Your task to perform on an android device: Open the map Image 0: 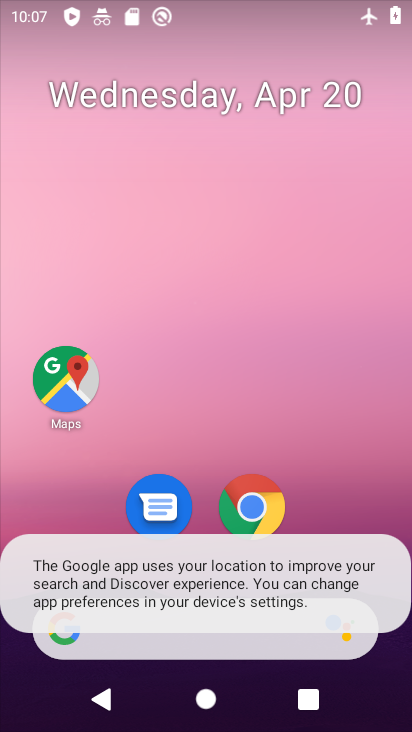
Step 0: drag from (202, 496) to (246, 87)
Your task to perform on an android device: Open the map Image 1: 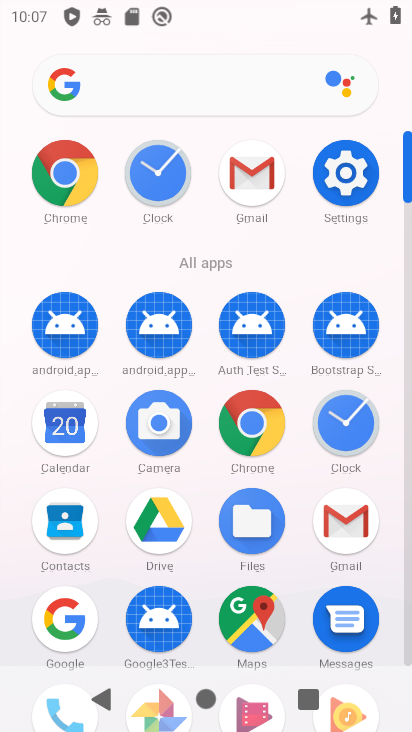
Step 1: drag from (215, 586) to (216, 136)
Your task to perform on an android device: Open the map Image 2: 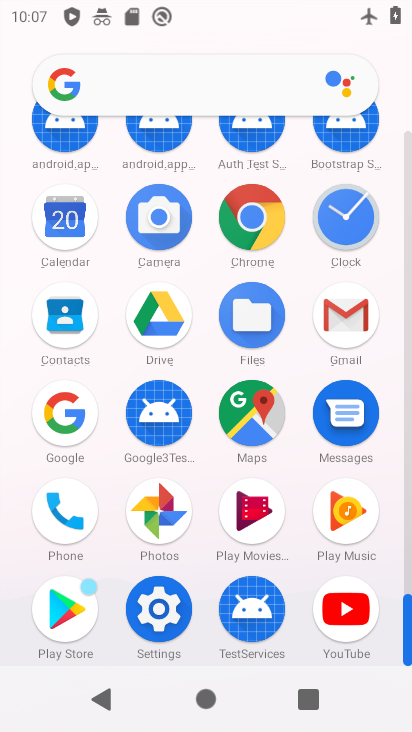
Step 2: click (250, 420)
Your task to perform on an android device: Open the map Image 3: 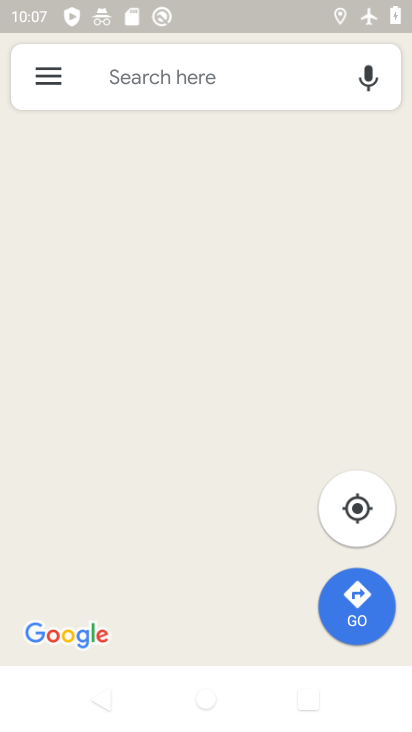
Step 3: task complete